Your task to perform on an android device: Add "asus zenbook" to the cart on walmart Image 0: 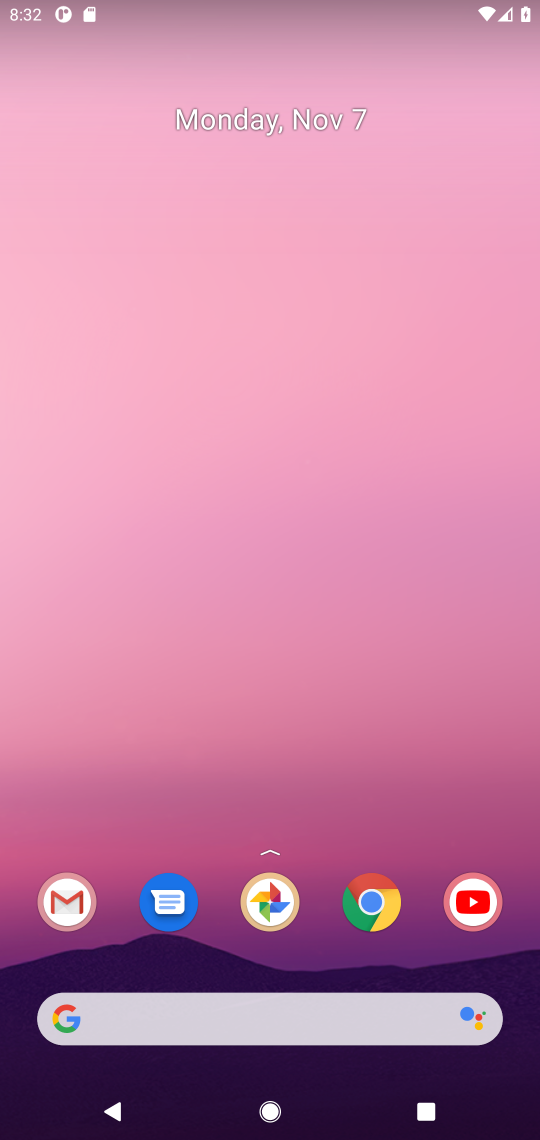
Step 0: click (363, 921)
Your task to perform on an android device: Add "asus zenbook" to the cart on walmart Image 1: 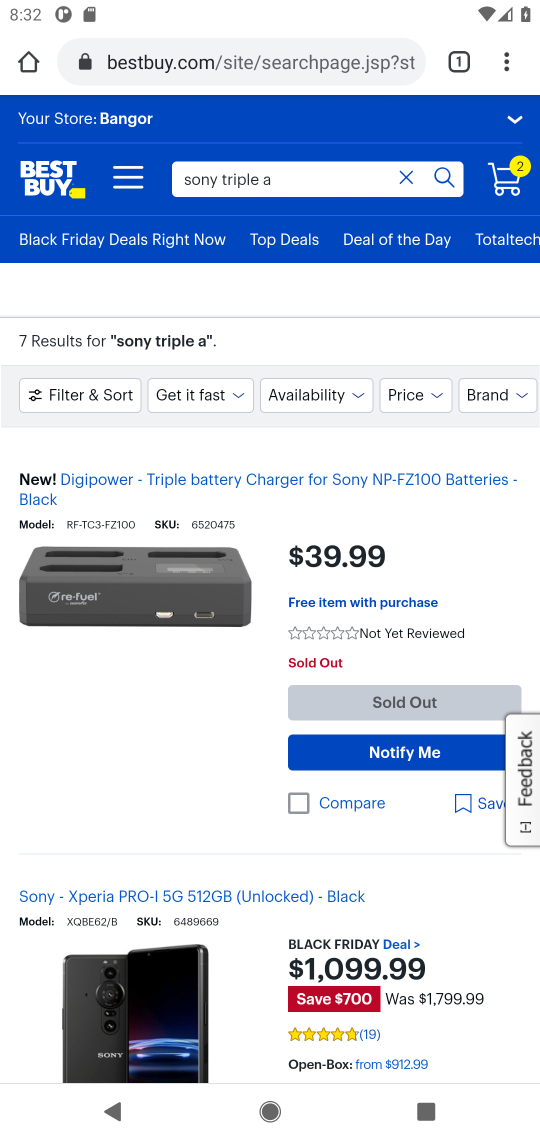
Step 1: click (271, 52)
Your task to perform on an android device: Add "asus zenbook" to the cart on walmart Image 2: 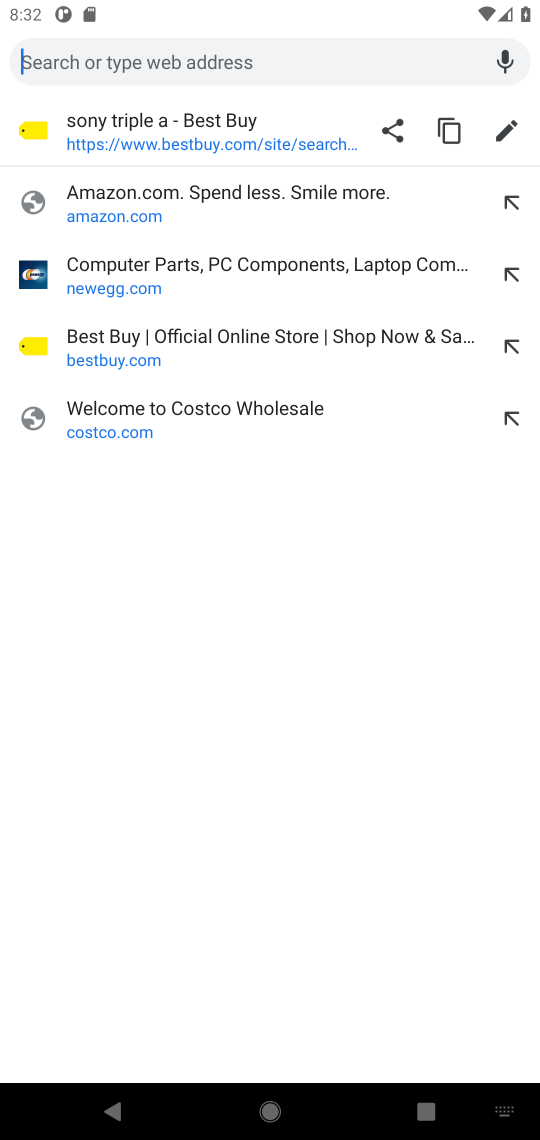
Step 2: type "walmart.com"
Your task to perform on an android device: Add "asus zenbook" to the cart on walmart Image 3: 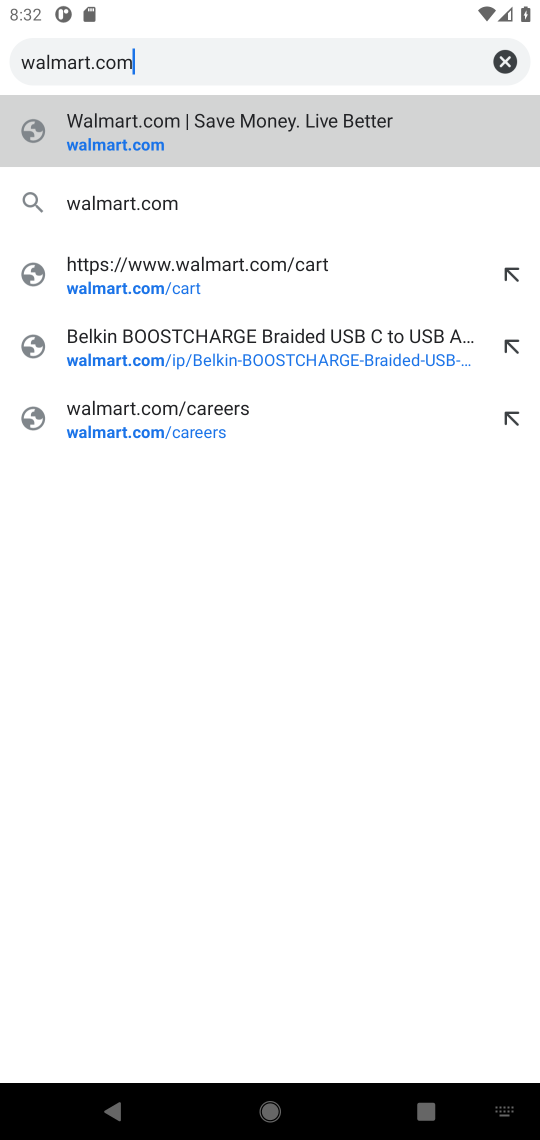
Step 3: click (120, 147)
Your task to perform on an android device: Add "asus zenbook" to the cart on walmart Image 4: 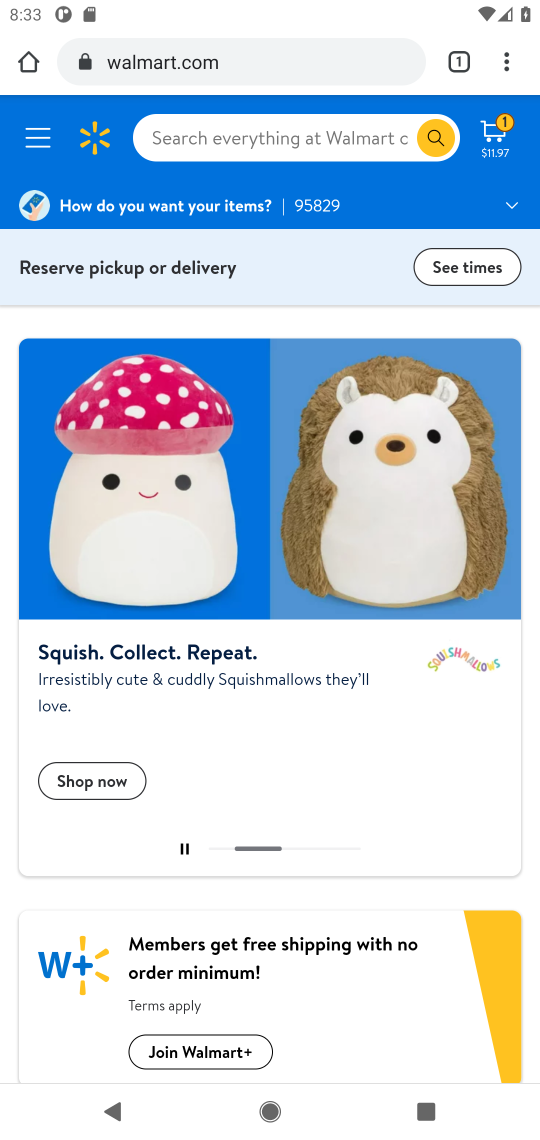
Step 4: click (327, 152)
Your task to perform on an android device: Add "asus zenbook" to the cart on walmart Image 5: 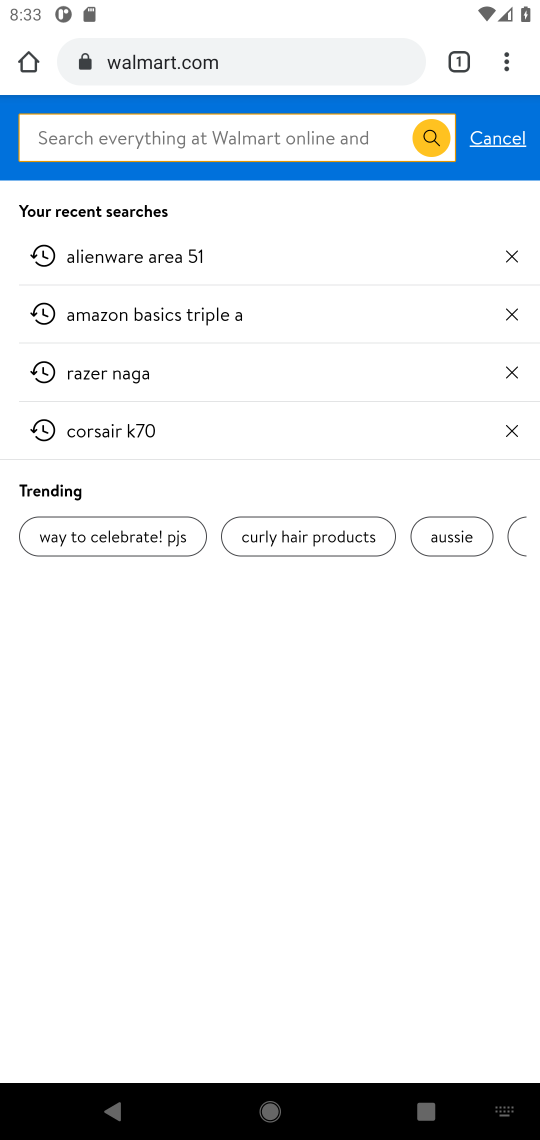
Step 5: type "asus zenbook"
Your task to perform on an android device: Add "asus zenbook" to the cart on walmart Image 6: 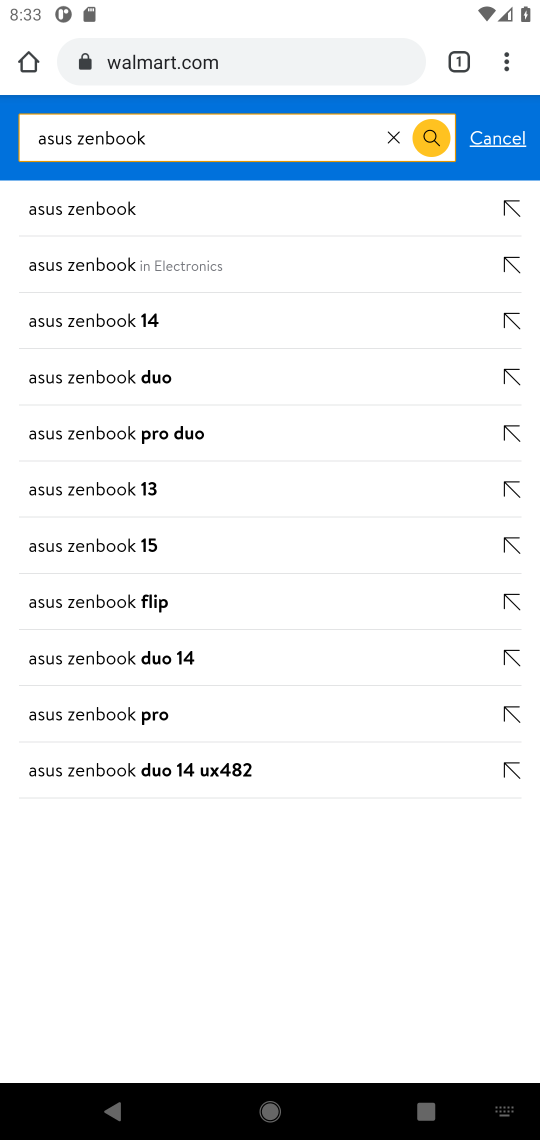
Step 6: click (109, 221)
Your task to perform on an android device: Add "asus zenbook" to the cart on walmart Image 7: 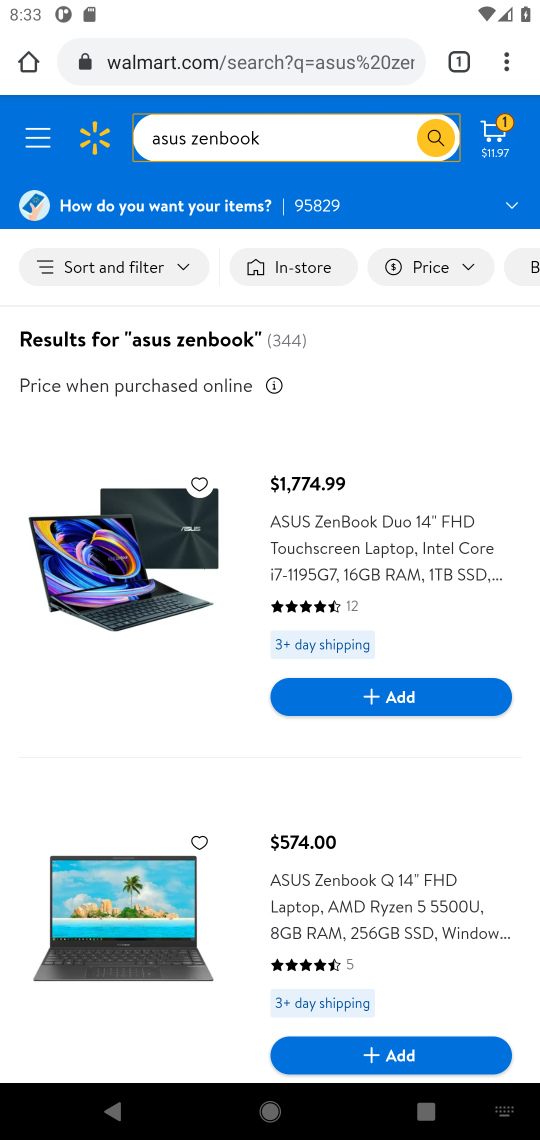
Step 7: click (341, 693)
Your task to perform on an android device: Add "asus zenbook" to the cart on walmart Image 8: 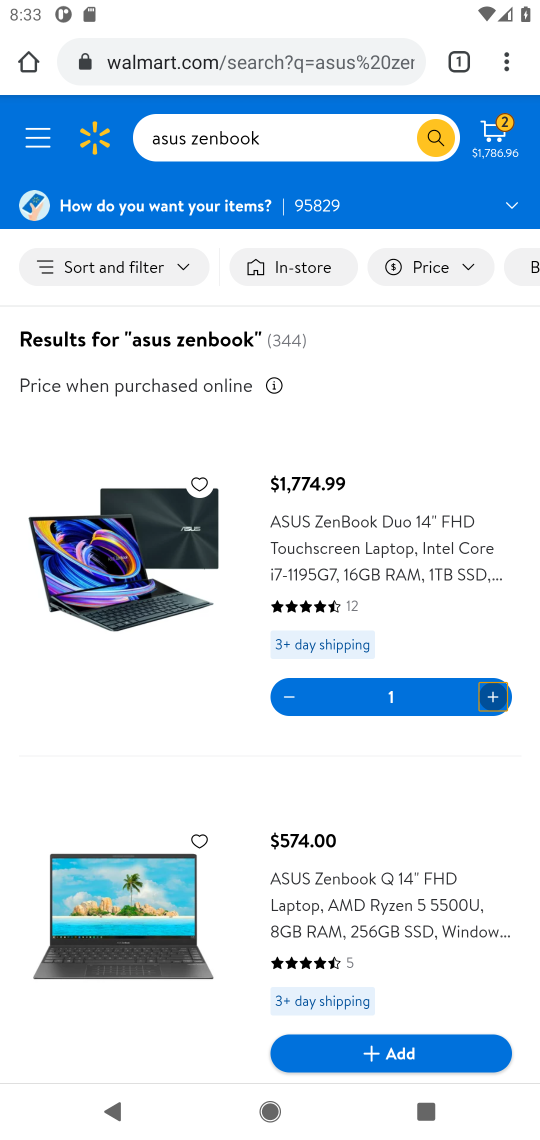
Step 8: task complete